Your task to perform on an android device: open app "Google Keep" Image 0: 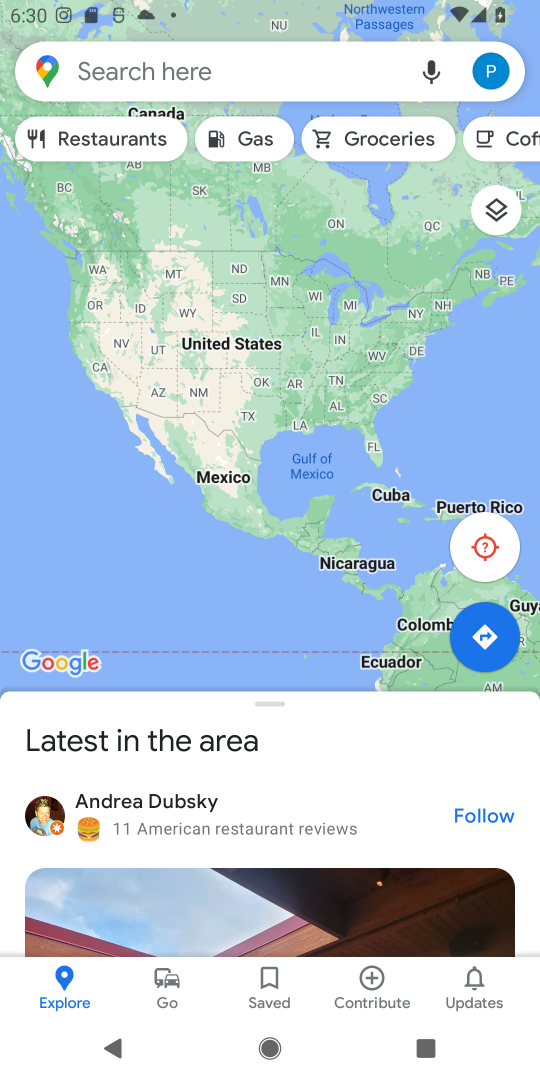
Step 0: press home button
Your task to perform on an android device: open app "Google Keep" Image 1: 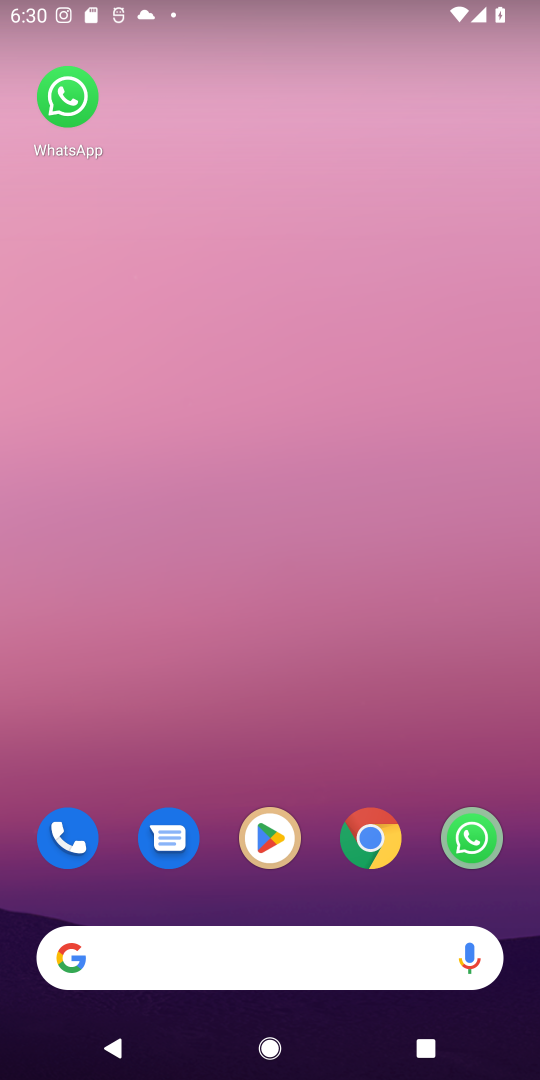
Step 1: click (275, 847)
Your task to perform on an android device: open app "Google Keep" Image 2: 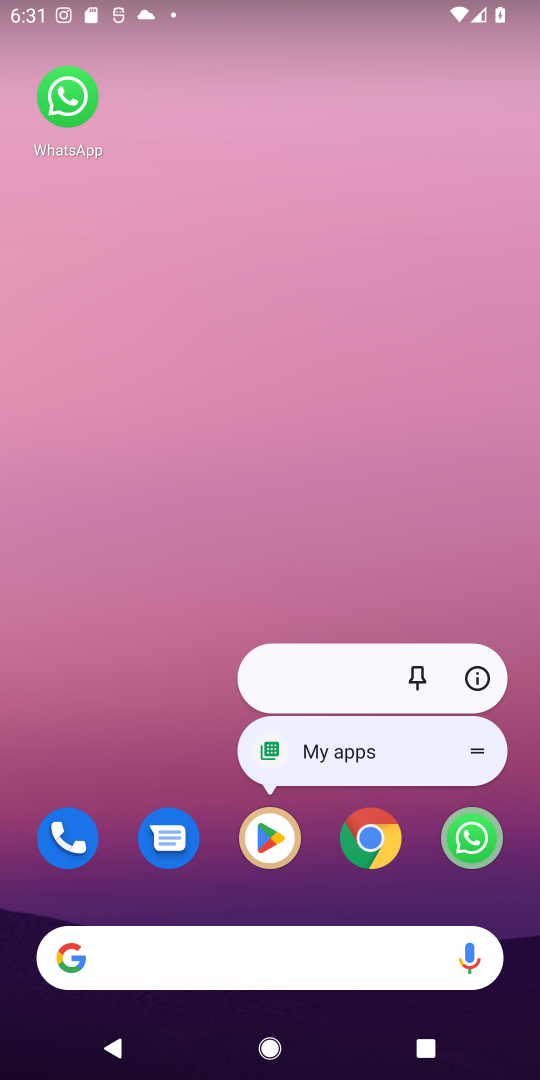
Step 2: click (269, 849)
Your task to perform on an android device: open app "Google Keep" Image 3: 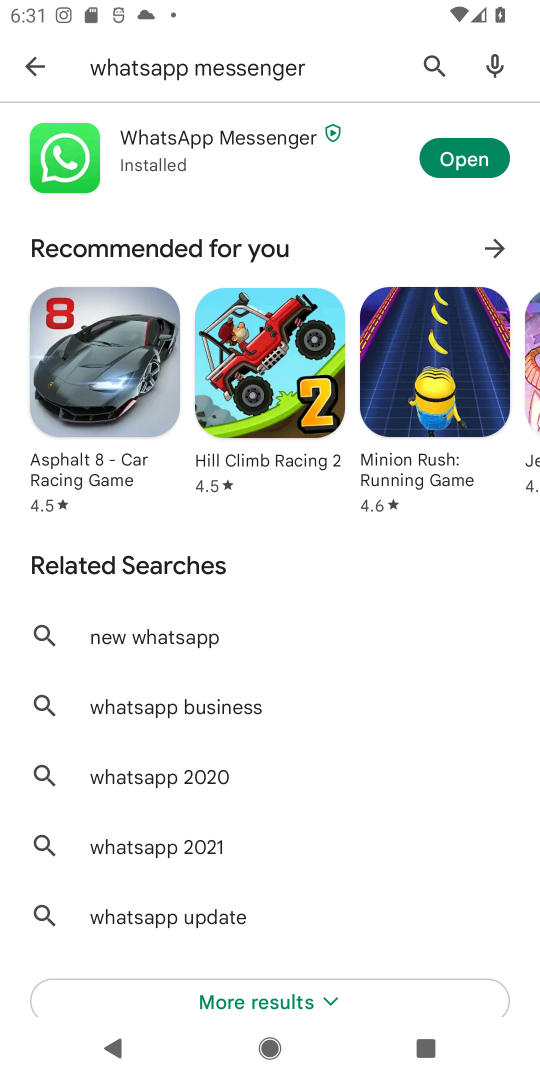
Step 3: click (466, 158)
Your task to perform on an android device: open app "Google Keep" Image 4: 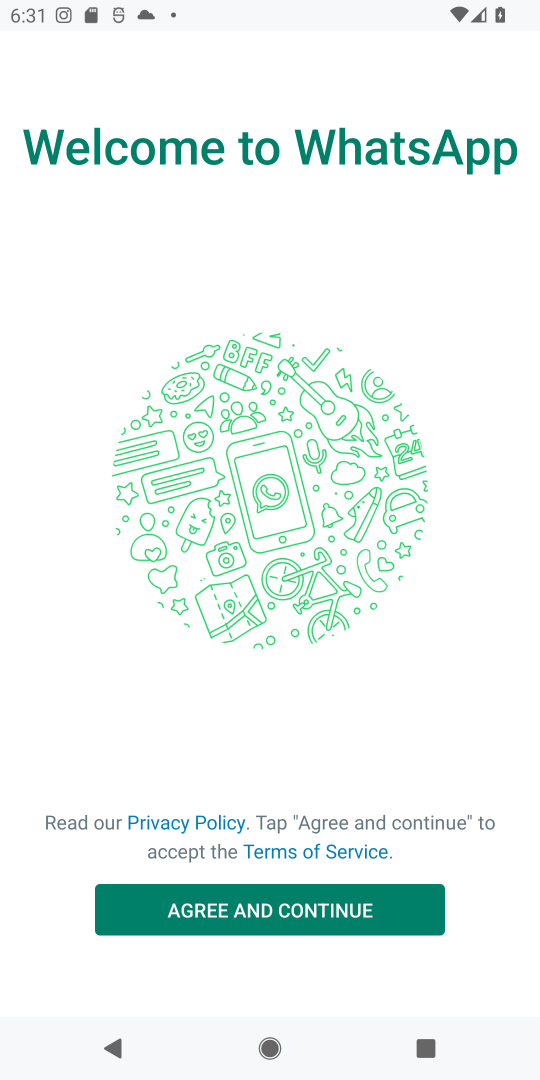
Step 4: press home button
Your task to perform on an android device: open app "Google Keep" Image 5: 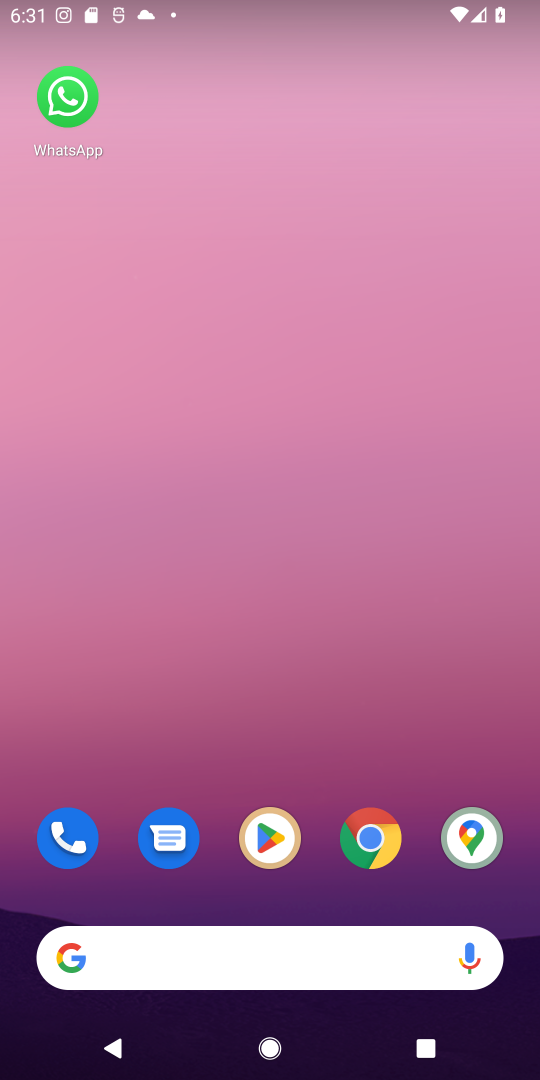
Step 5: click (267, 842)
Your task to perform on an android device: open app "Google Keep" Image 6: 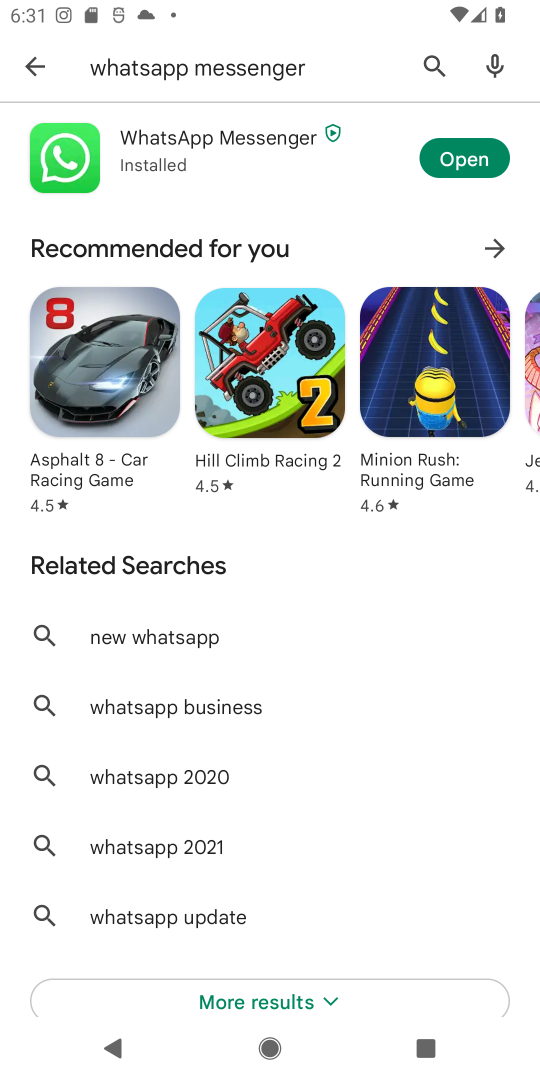
Step 6: click (429, 60)
Your task to perform on an android device: open app "Google Keep" Image 7: 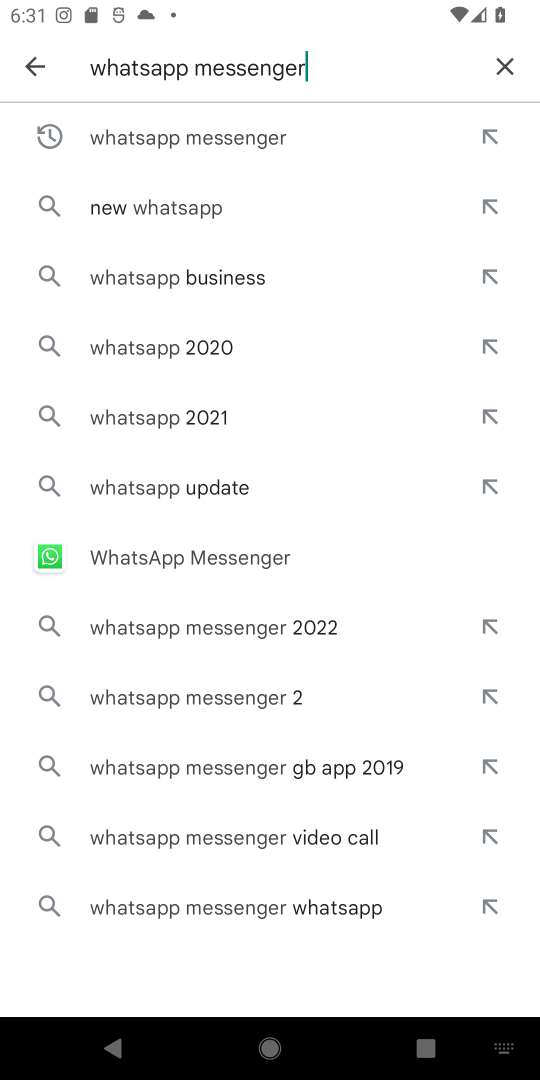
Step 7: click (504, 60)
Your task to perform on an android device: open app "Google Keep" Image 8: 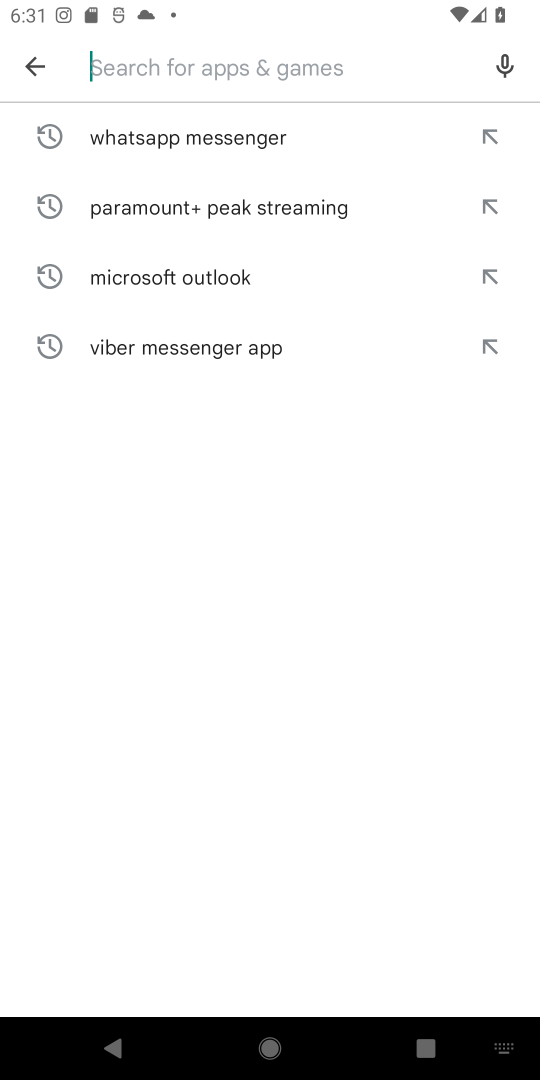
Step 8: type "Google Keep"
Your task to perform on an android device: open app "Google Keep" Image 9: 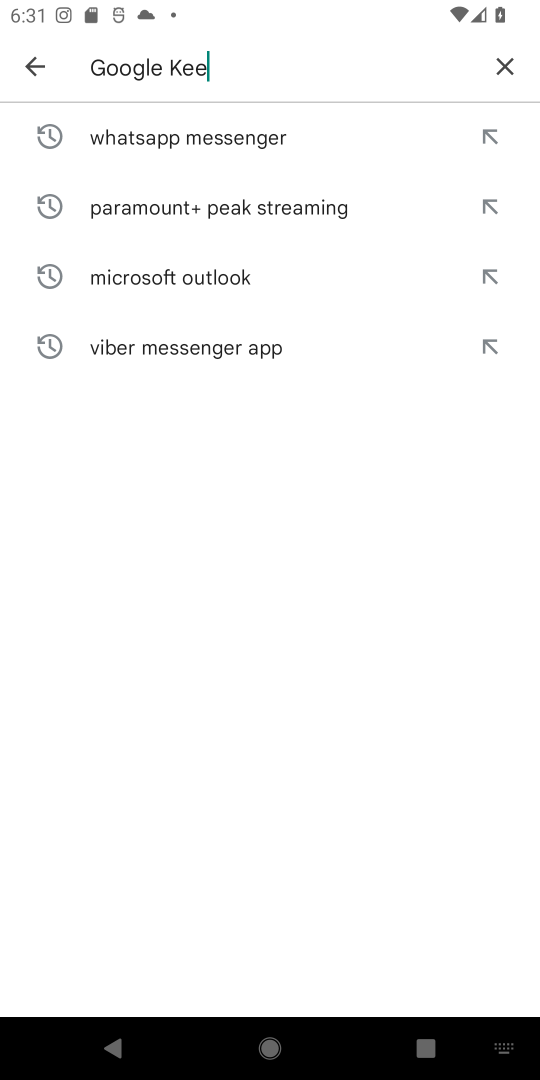
Step 9: type ""
Your task to perform on an android device: open app "Google Keep" Image 10: 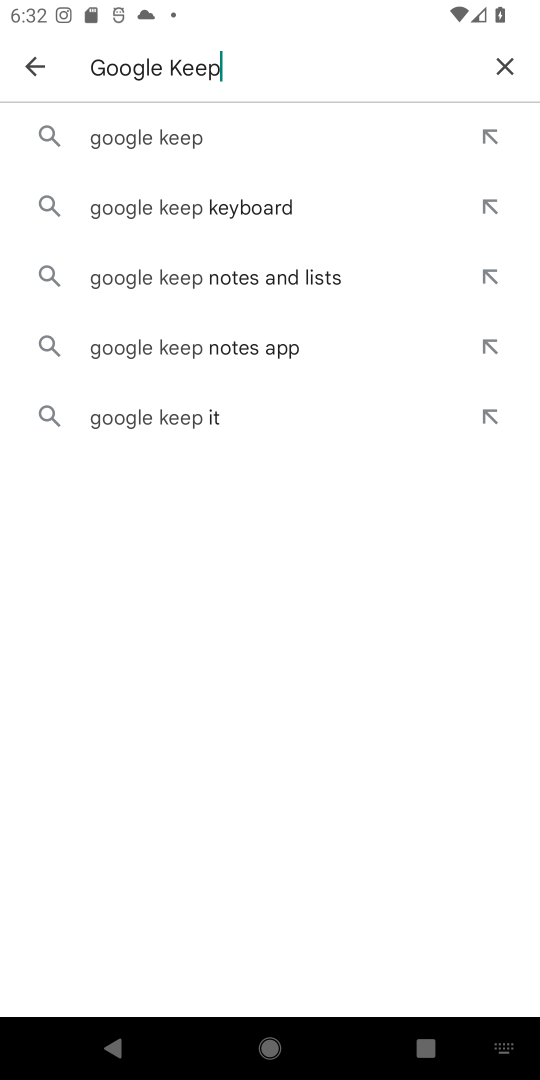
Step 10: click (145, 137)
Your task to perform on an android device: open app "Google Keep" Image 11: 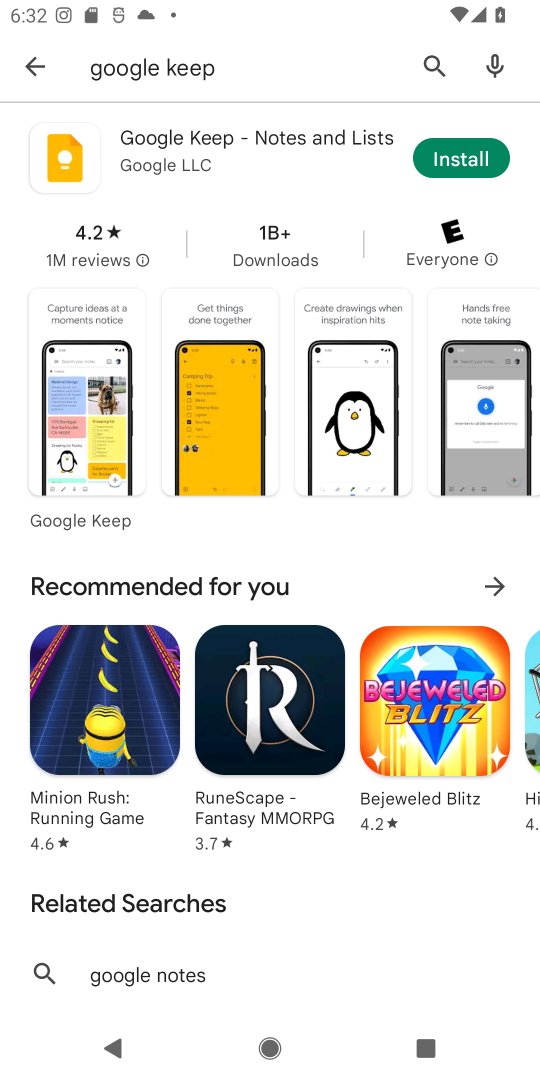
Step 11: task complete